Your task to perform on an android device: Open the web browser Image 0: 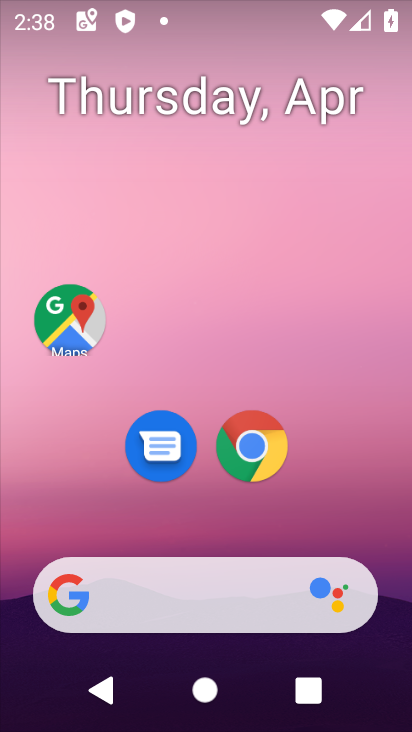
Step 0: drag from (300, 610) to (248, 149)
Your task to perform on an android device: Open the web browser Image 1: 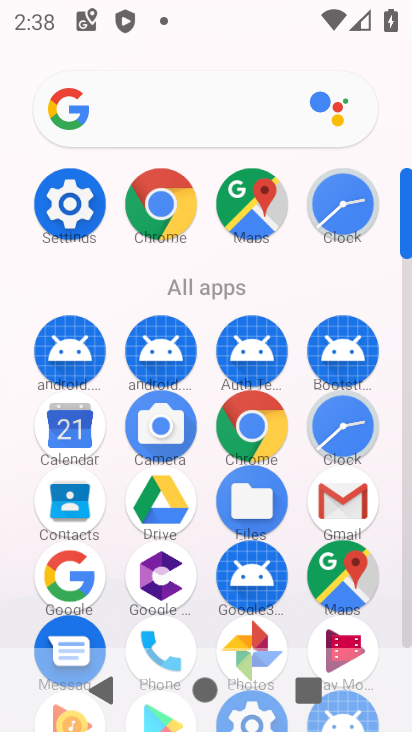
Step 1: click (173, 205)
Your task to perform on an android device: Open the web browser Image 2: 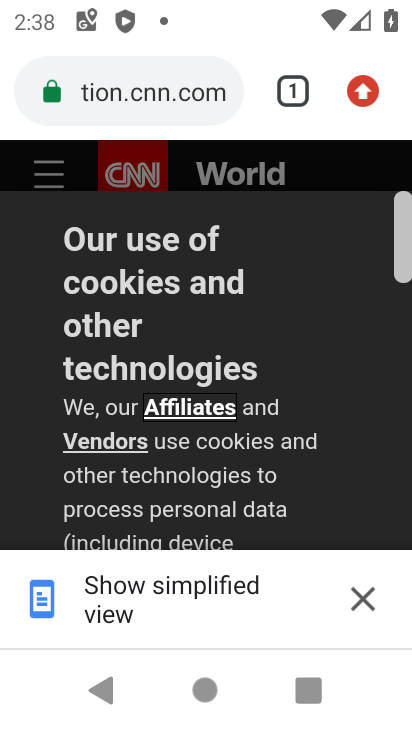
Step 2: click (367, 98)
Your task to perform on an android device: Open the web browser Image 3: 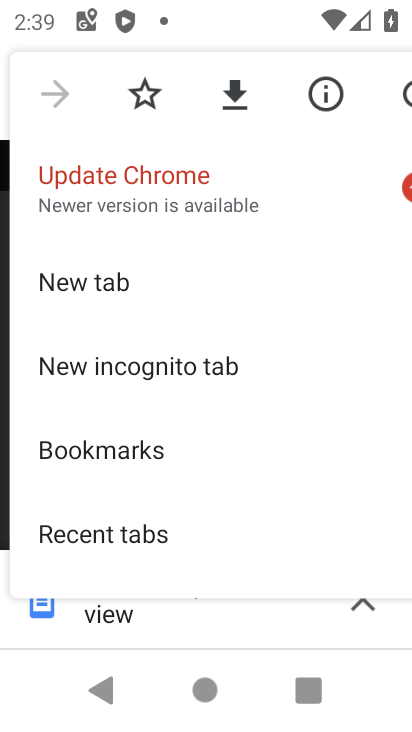
Step 3: click (123, 290)
Your task to perform on an android device: Open the web browser Image 4: 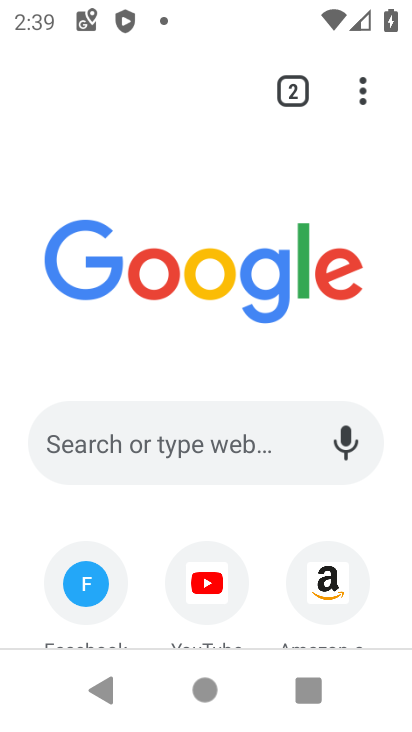
Step 4: click (182, 435)
Your task to perform on an android device: Open the web browser Image 5: 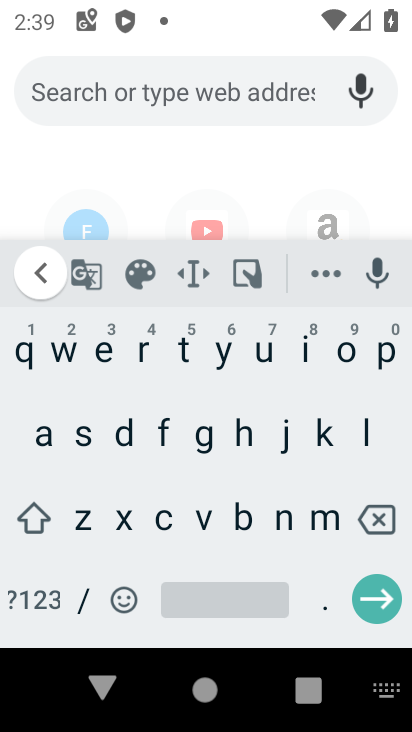
Step 5: task complete